Your task to perform on an android device: turn on the 24-hour format for clock Image 0: 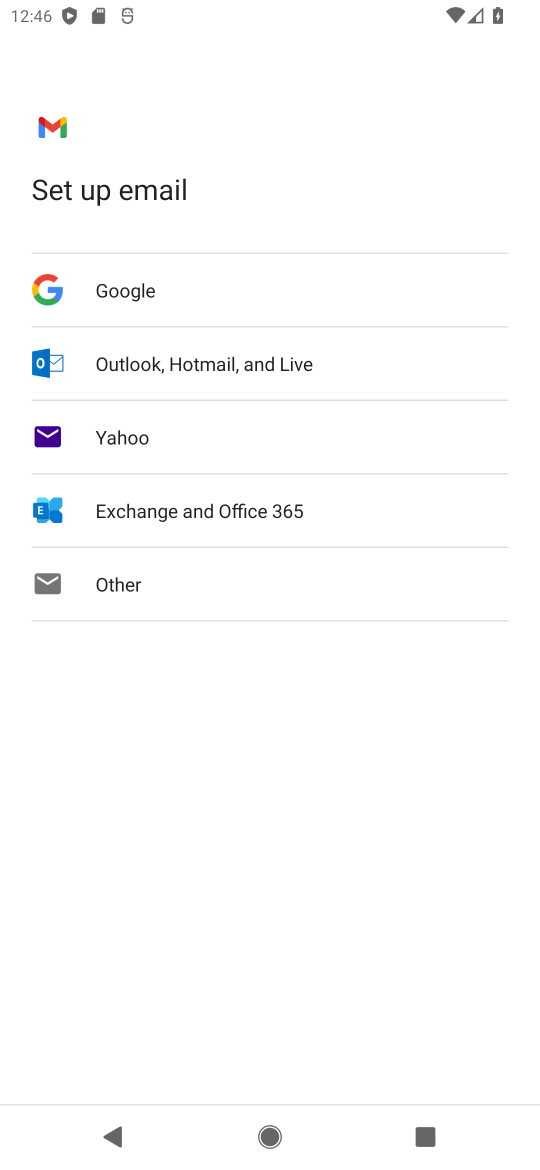
Step 0: press home button
Your task to perform on an android device: turn on the 24-hour format for clock Image 1: 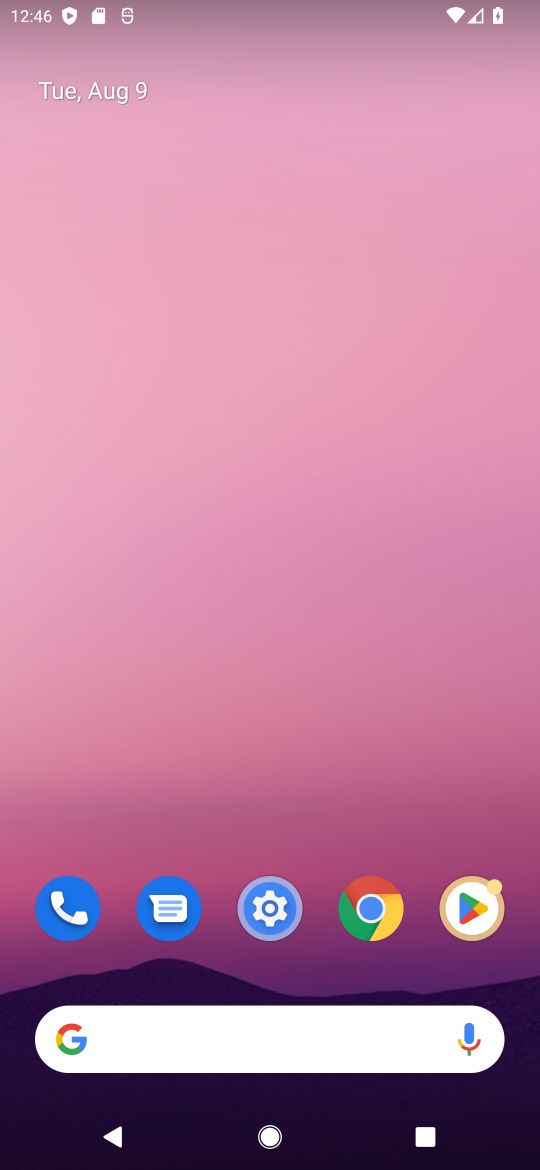
Step 1: drag from (300, 865) to (310, 416)
Your task to perform on an android device: turn on the 24-hour format for clock Image 2: 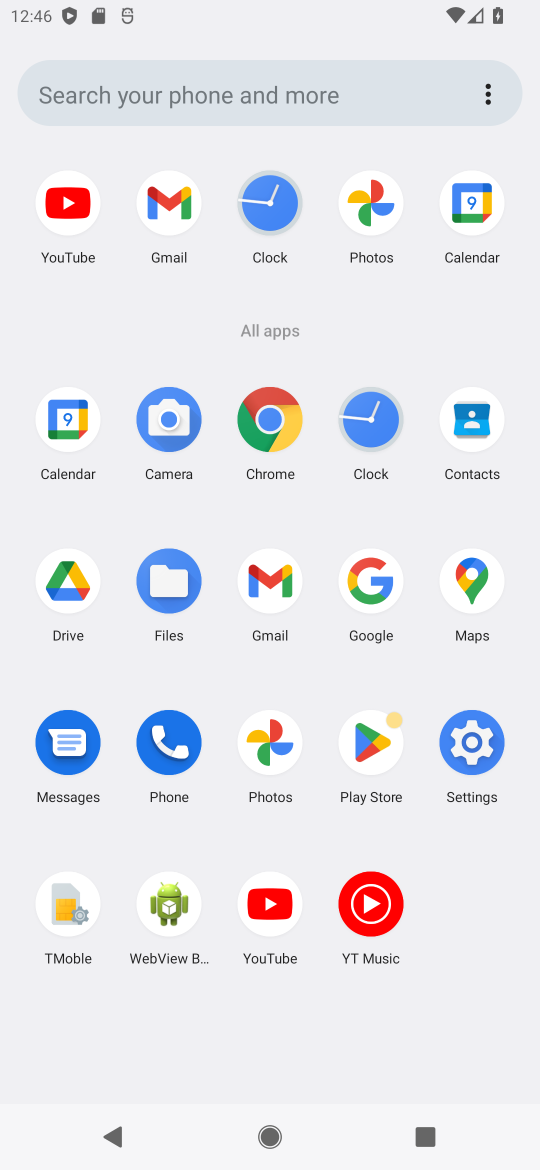
Step 2: click (365, 432)
Your task to perform on an android device: turn on the 24-hour format for clock Image 3: 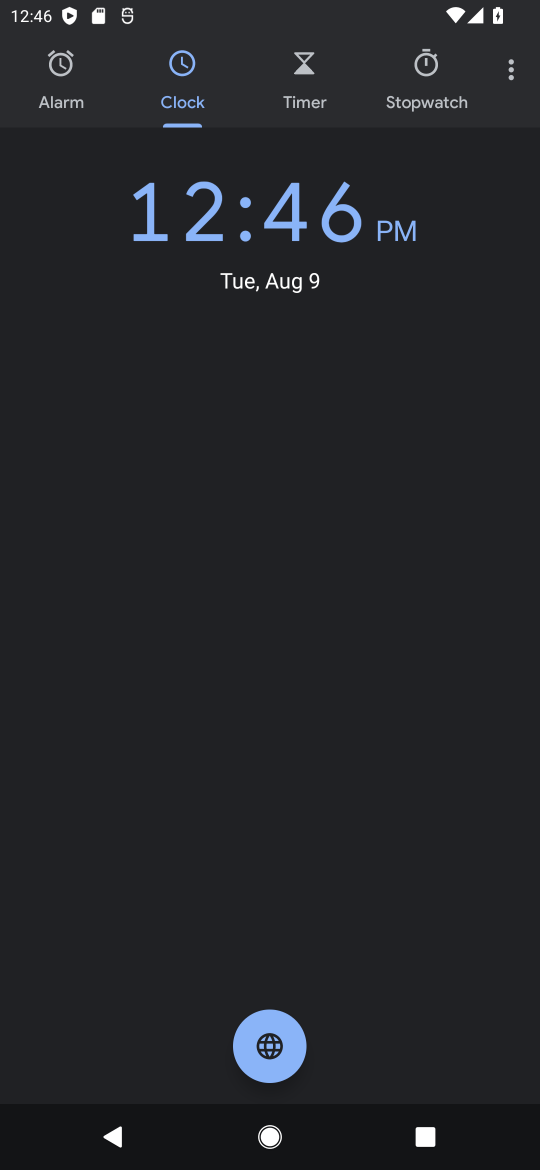
Step 3: click (514, 66)
Your task to perform on an android device: turn on the 24-hour format for clock Image 4: 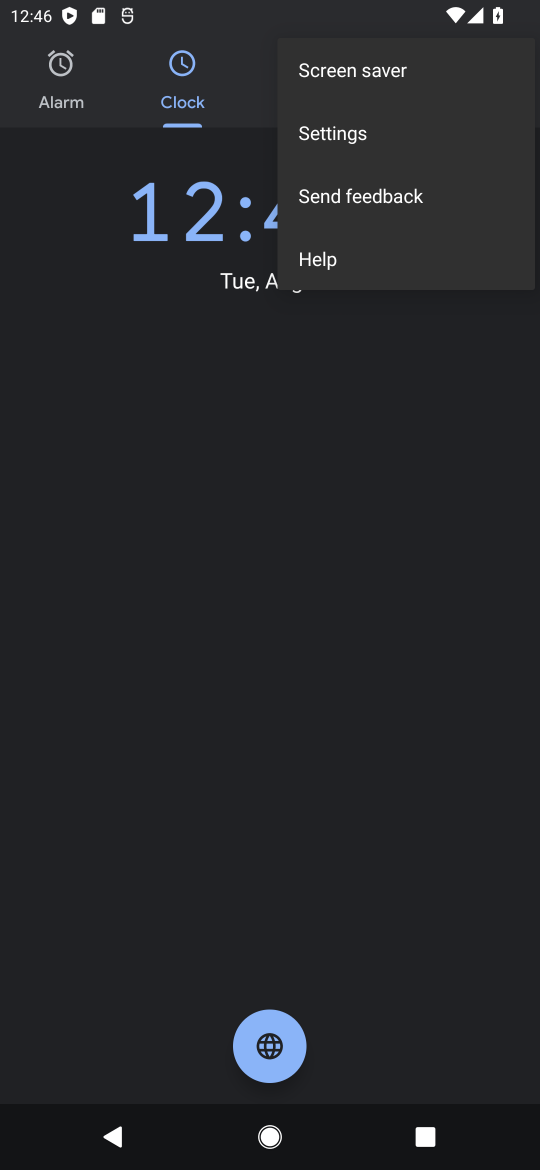
Step 4: click (355, 133)
Your task to perform on an android device: turn on the 24-hour format for clock Image 5: 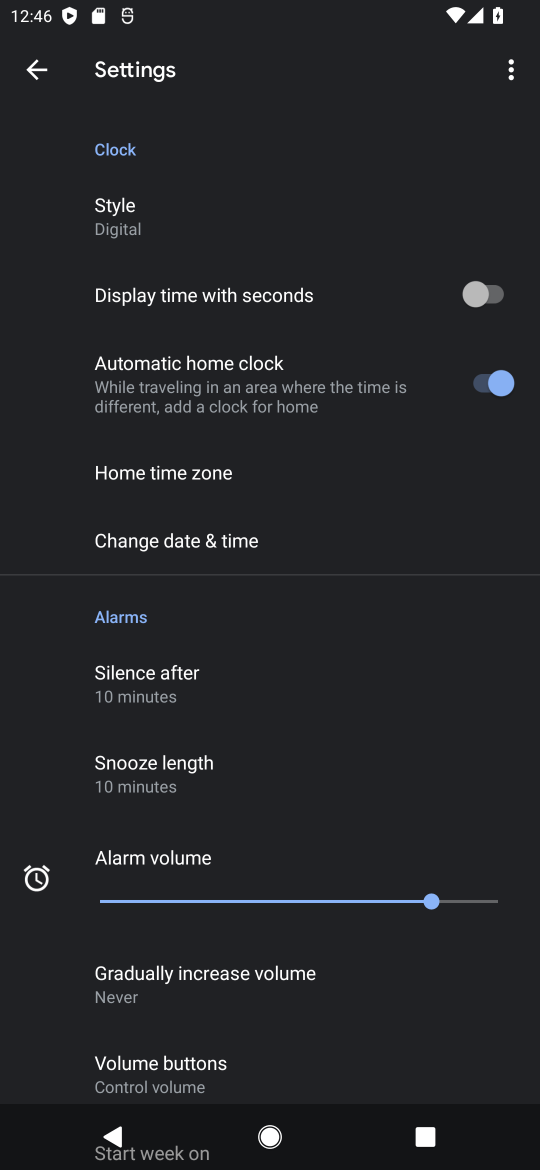
Step 5: click (243, 526)
Your task to perform on an android device: turn on the 24-hour format for clock Image 6: 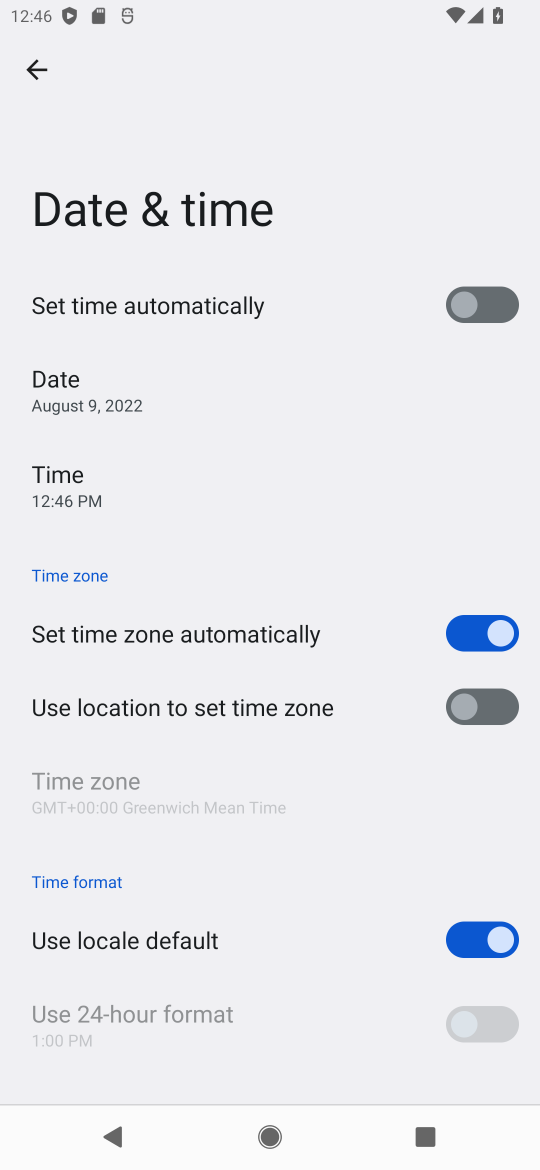
Step 6: click (460, 940)
Your task to perform on an android device: turn on the 24-hour format for clock Image 7: 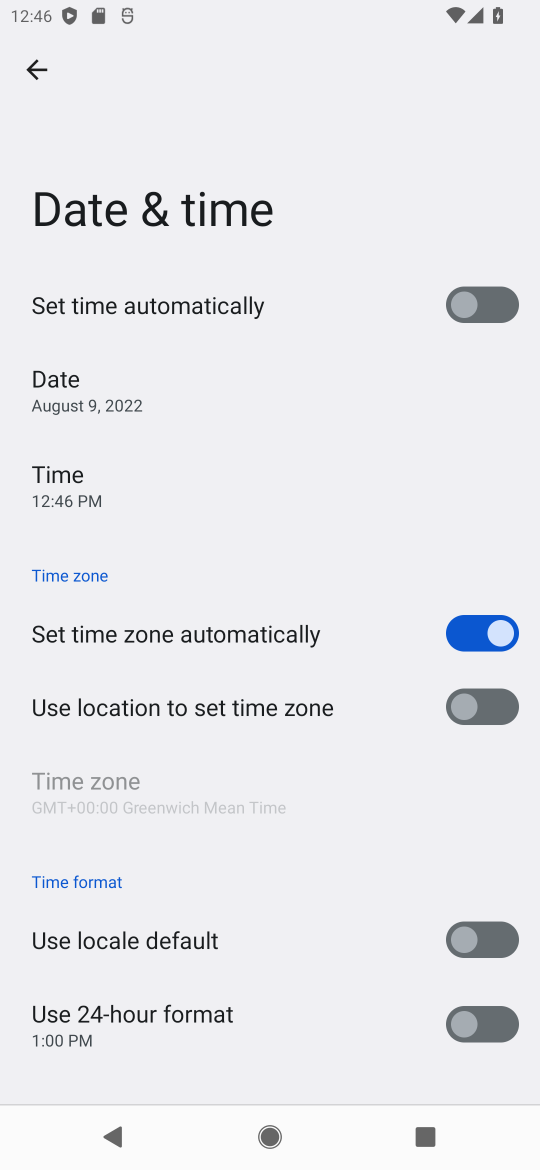
Step 7: click (503, 1027)
Your task to perform on an android device: turn on the 24-hour format for clock Image 8: 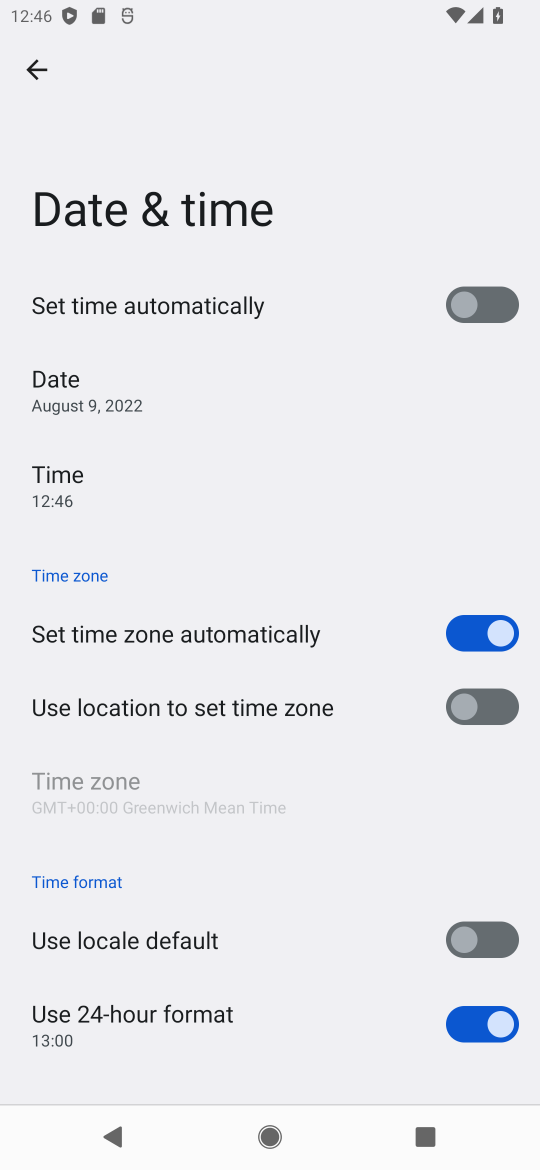
Step 8: task complete